Your task to perform on an android device: Do I have any events today? Image 0: 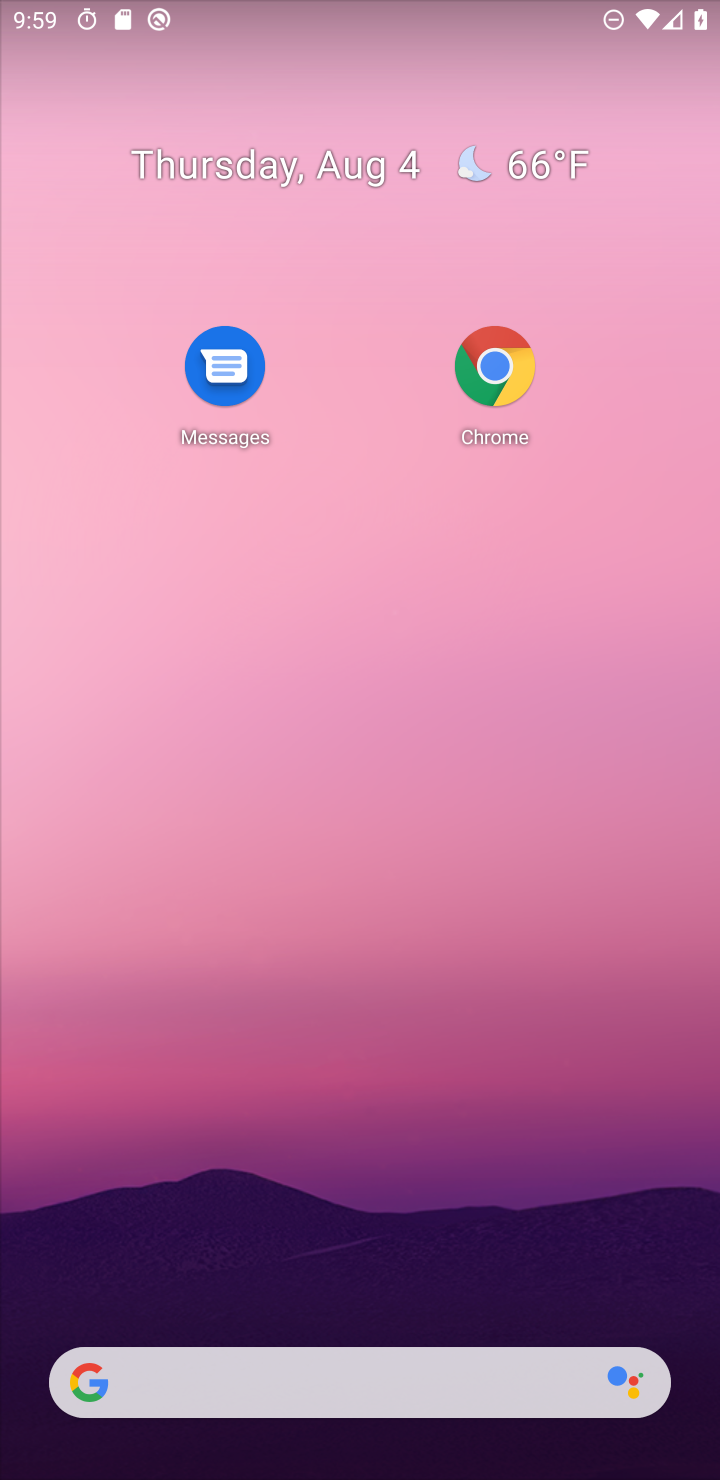
Step 0: drag from (522, 1315) to (233, 465)
Your task to perform on an android device: Do I have any events today? Image 1: 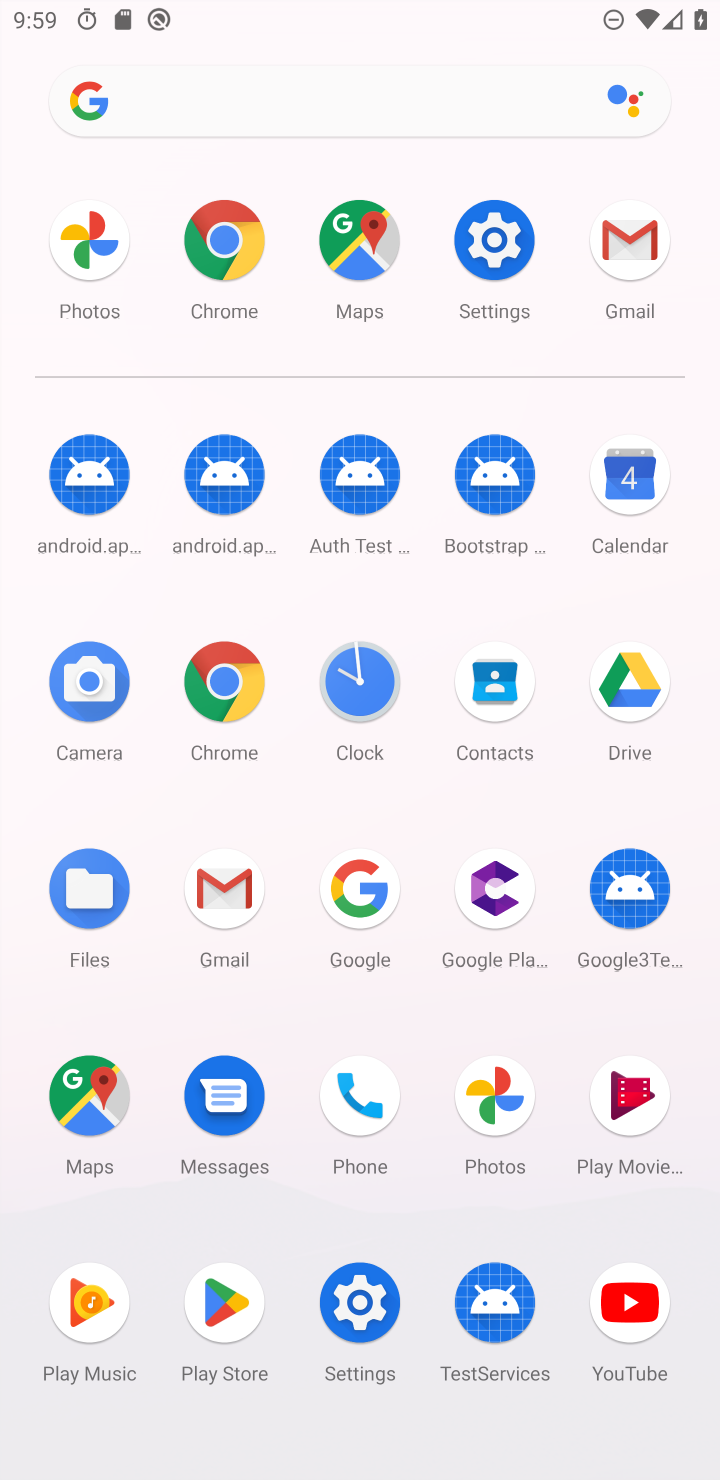
Step 1: click (625, 476)
Your task to perform on an android device: Do I have any events today? Image 2: 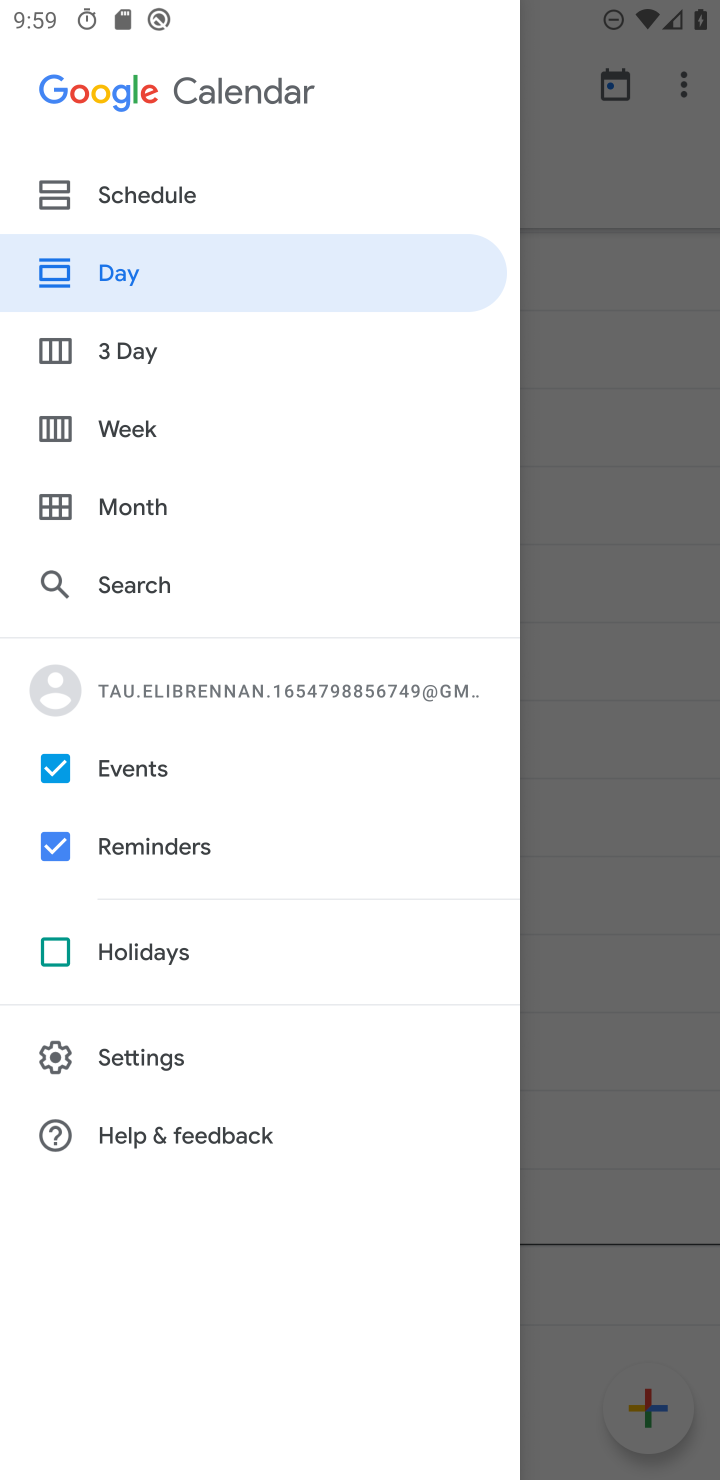
Step 2: click (188, 204)
Your task to perform on an android device: Do I have any events today? Image 3: 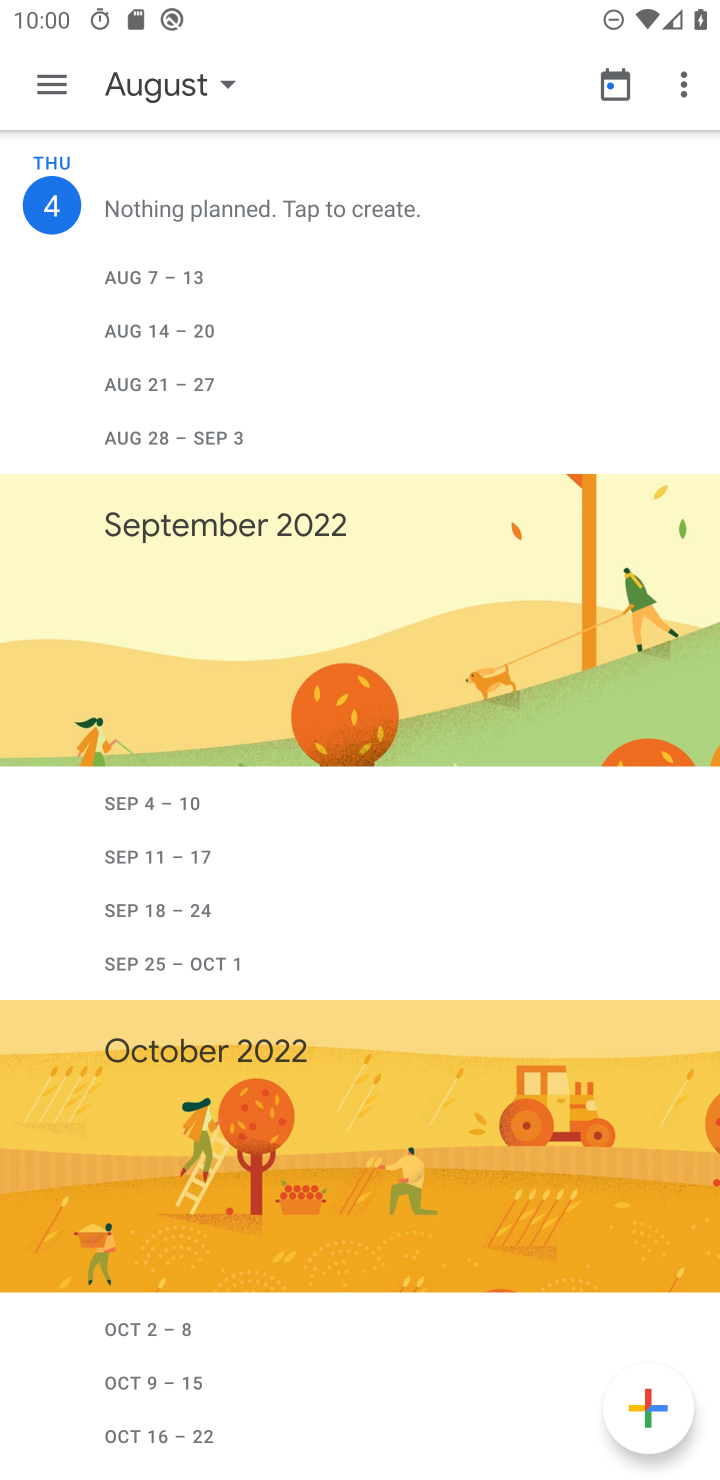
Step 3: task complete